Your task to perform on an android device: open a bookmark in the chrome app Image 0: 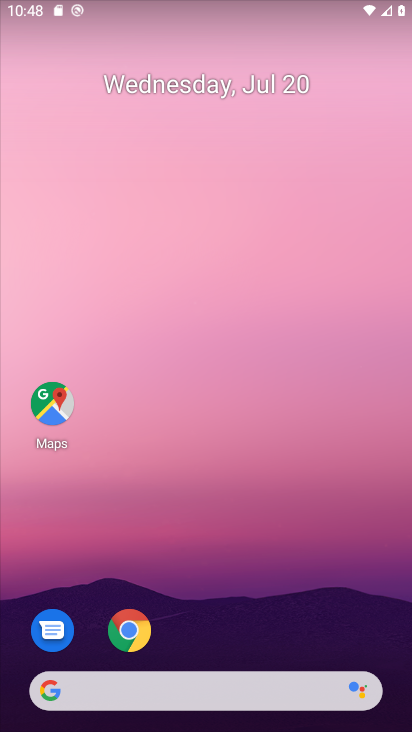
Step 0: drag from (227, 701) to (204, 208)
Your task to perform on an android device: open a bookmark in the chrome app Image 1: 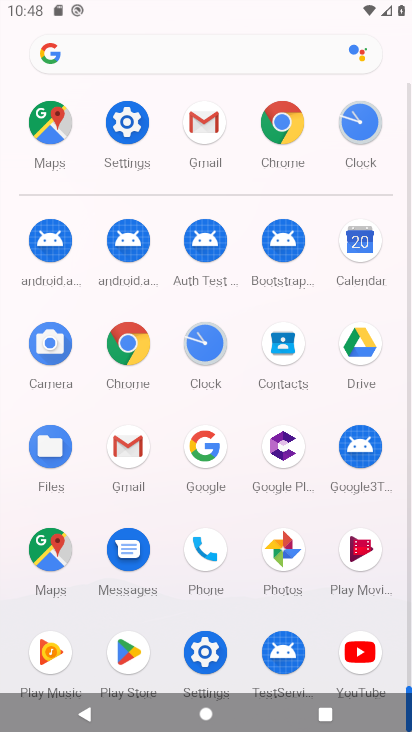
Step 1: click (275, 125)
Your task to perform on an android device: open a bookmark in the chrome app Image 2: 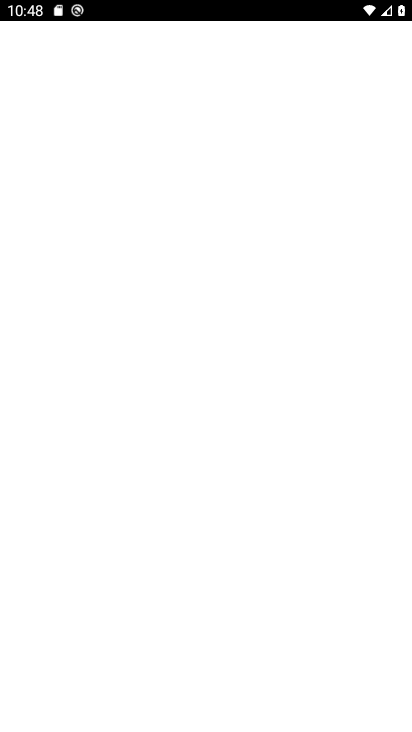
Step 2: click (276, 124)
Your task to perform on an android device: open a bookmark in the chrome app Image 3: 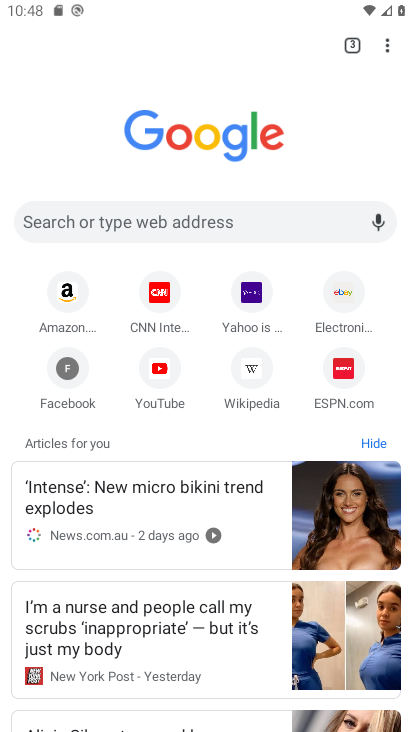
Step 3: drag from (389, 44) to (254, 169)
Your task to perform on an android device: open a bookmark in the chrome app Image 4: 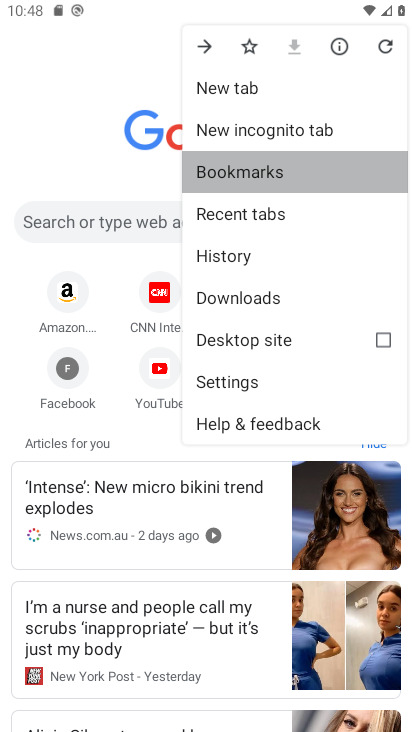
Step 4: click (254, 169)
Your task to perform on an android device: open a bookmark in the chrome app Image 5: 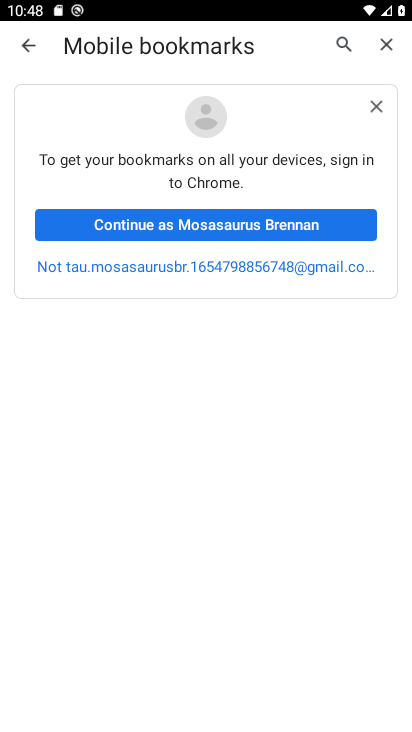
Step 5: click (362, 102)
Your task to perform on an android device: open a bookmark in the chrome app Image 6: 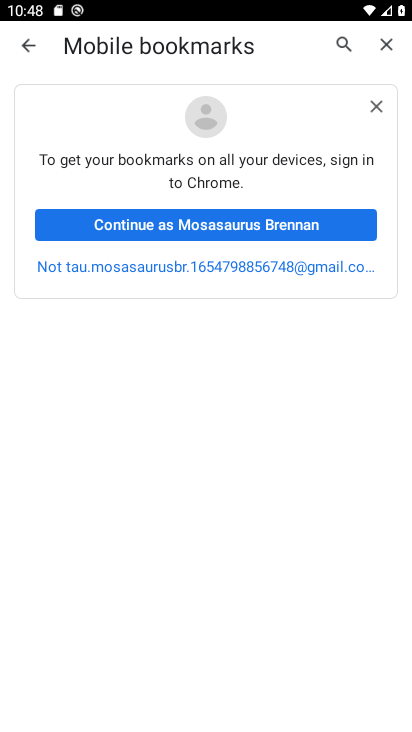
Step 6: click (370, 102)
Your task to perform on an android device: open a bookmark in the chrome app Image 7: 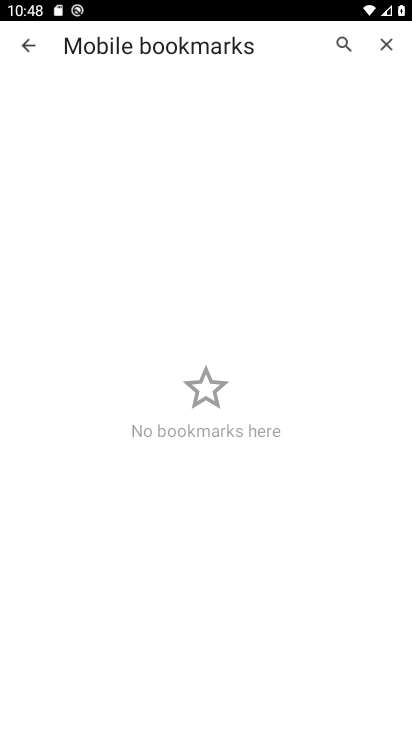
Step 7: task complete